Your task to perform on an android device: find photos in the google photos app Image 0: 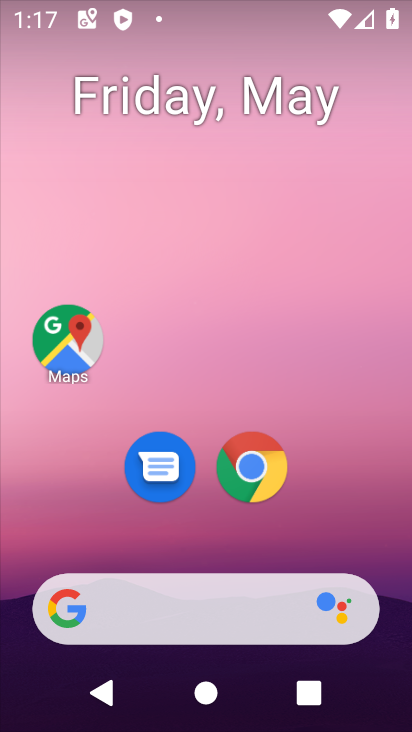
Step 0: drag from (326, 535) to (269, 103)
Your task to perform on an android device: find photos in the google photos app Image 1: 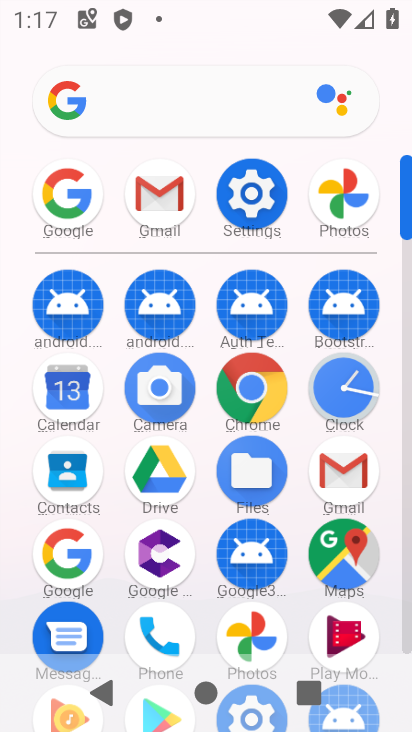
Step 1: click (344, 191)
Your task to perform on an android device: find photos in the google photos app Image 2: 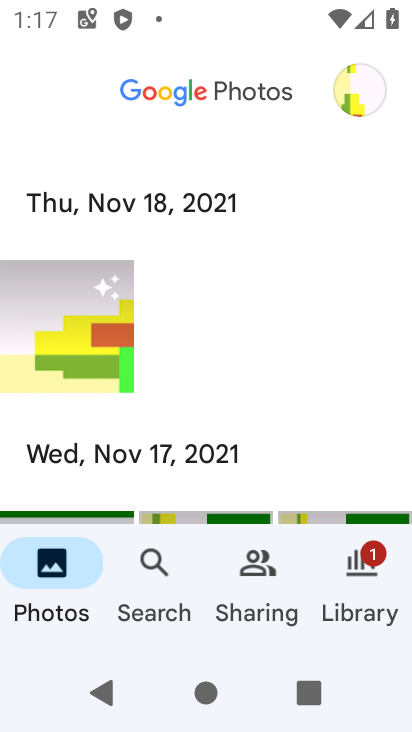
Step 2: click (162, 564)
Your task to perform on an android device: find photos in the google photos app Image 3: 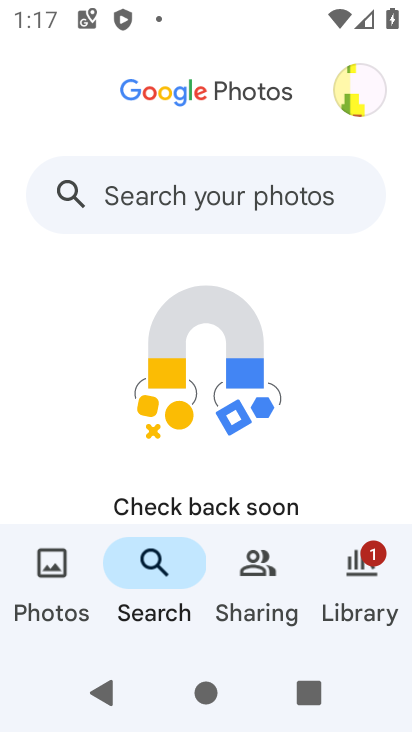
Step 3: drag from (294, 454) to (321, 243)
Your task to perform on an android device: find photos in the google photos app Image 4: 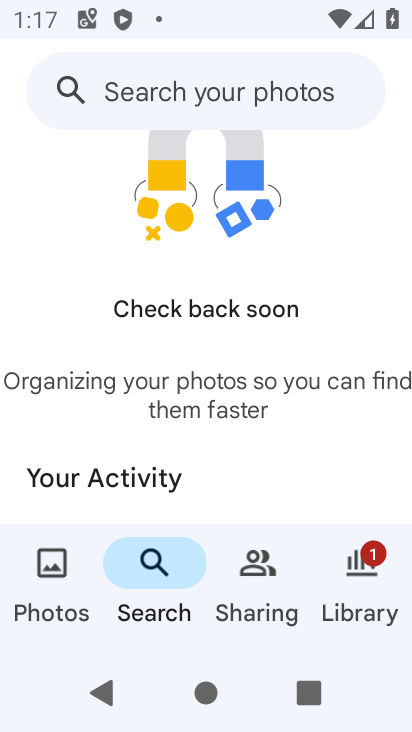
Step 4: drag from (269, 423) to (336, 239)
Your task to perform on an android device: find photos in the google photos app Image 5: 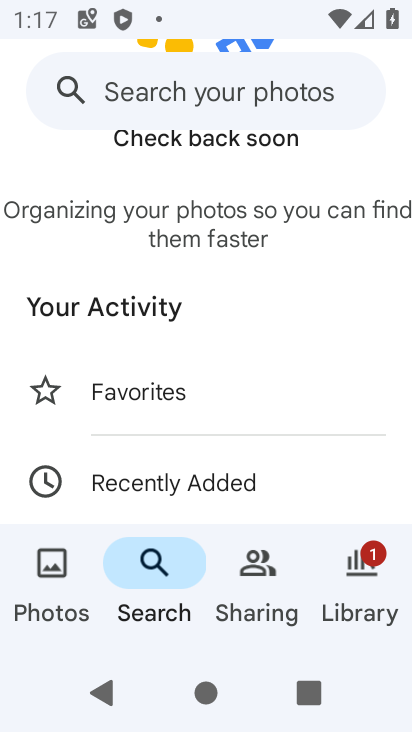
Step 5: click (136, 385)
Your task to perform on an android device: find photos in the google photos app Image 6: 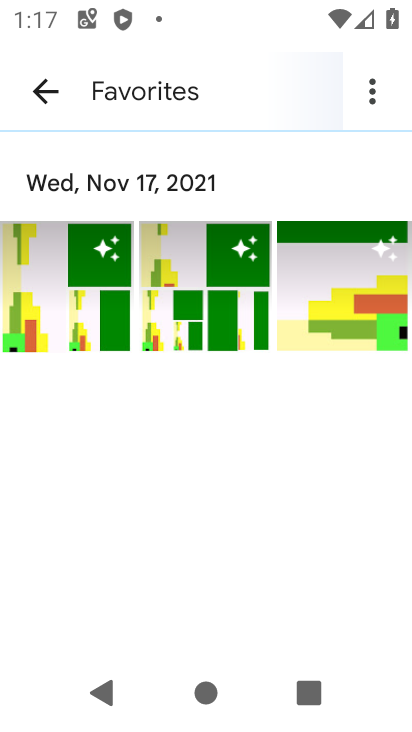
Step 6: task complete